Your task to perform on an android device: Turn off the flashlight Image 0: 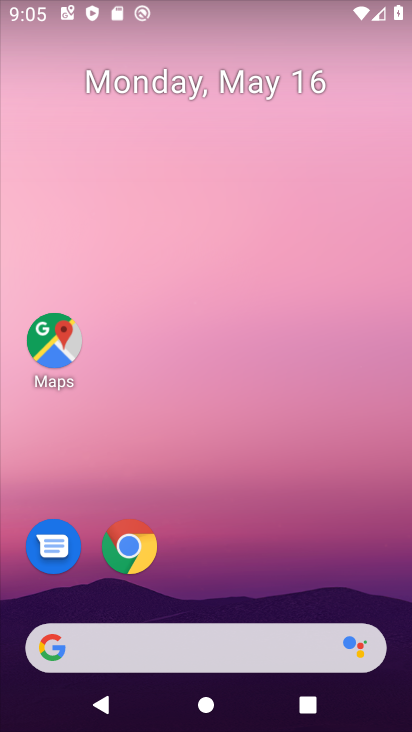
Step 0: drag from (233, 672) to (207, 262)
Your task to perform on an android device: Turn off the flashlight Image 1: 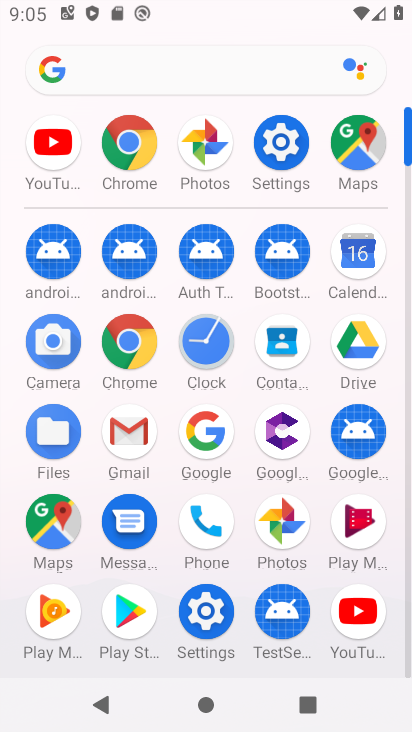
Step 1: click (277, 167)
Your task to perform on an android device: Turn off the flashlight Image 2: 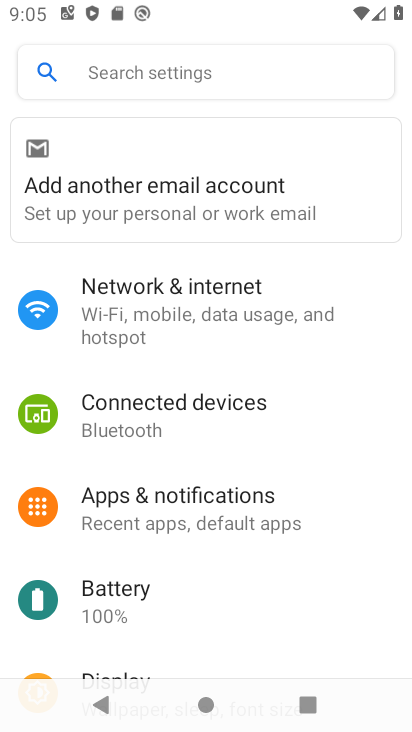
Step 2: click (178, 77)
Your task to perform on an android device: Turn off the flashlight Image 3: 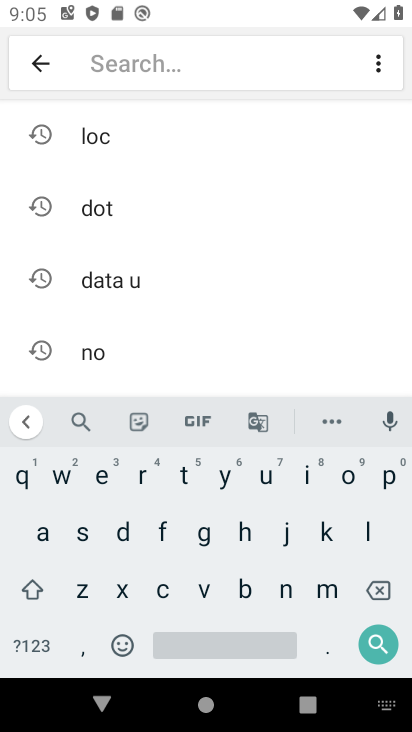
Step 3: click (160, 528)
Your task to perform on an android device: Turn off the flashlight Image 4: 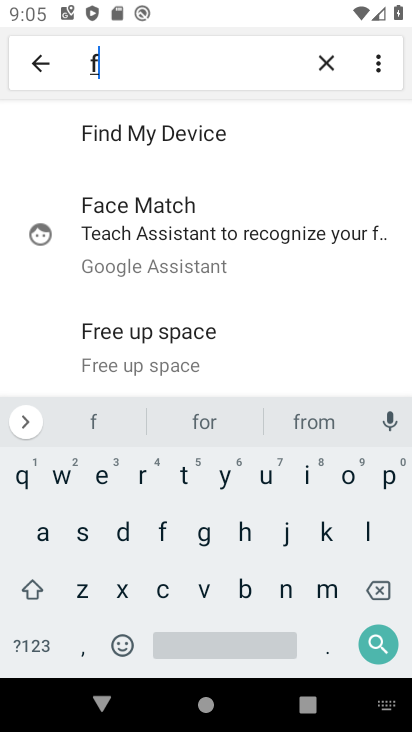
Step 4: click (372, 534)
Your task to perform on an android device: Turn off the flashlight Image 5: 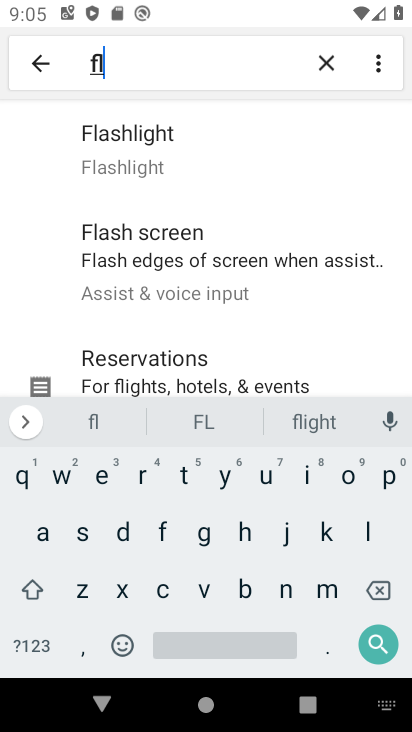
Step 5: click (180, 174)
Your task to perform on an android device: Turn off the flashlight Image 6: 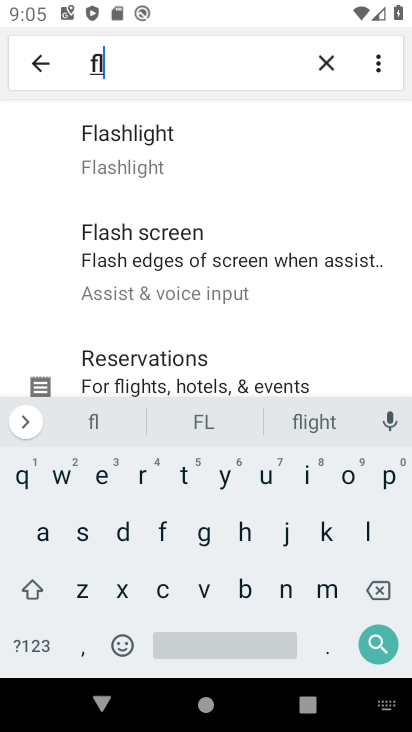
Step 6: click (177, 180)
Your task to perform on an android device: Turn off the flashlight Image 7: 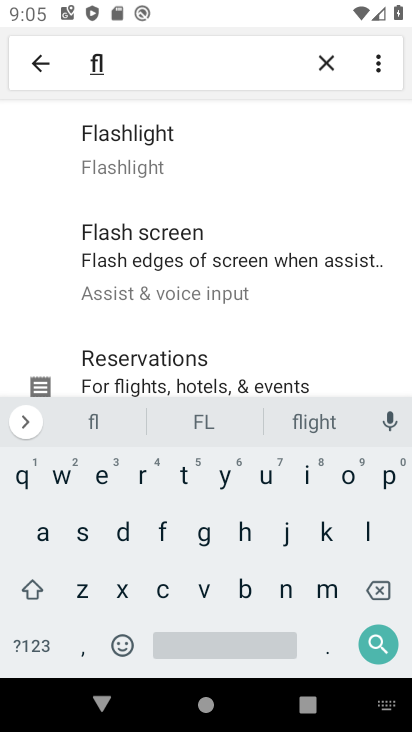
Step 7: click (176, 179)
Your task to perform on an android device: Turn off the flashlight Image 8: 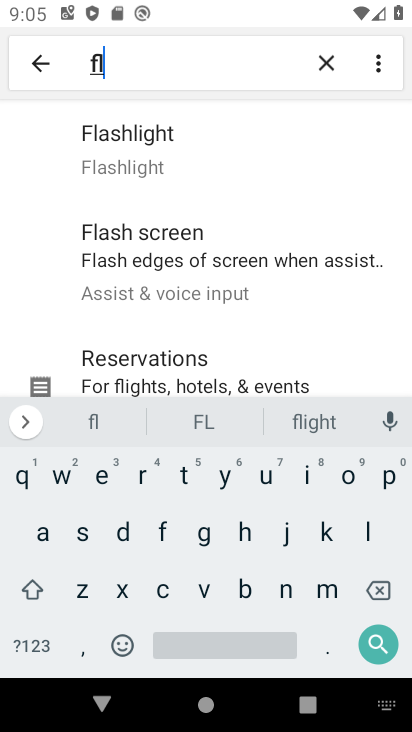
Step 8: task complete